Your task to perform on an android device: Toggle the flashlight Image 0: 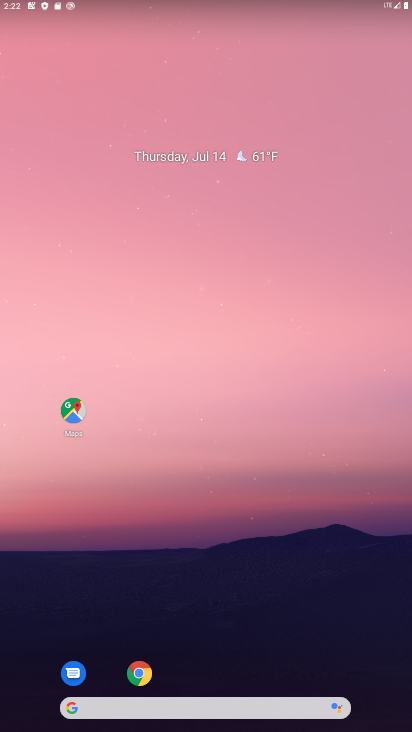
Step 0: drag from (220, 653) to (382, 31)
Your task to perform on an android device: Toggle the flashlight Image 1: 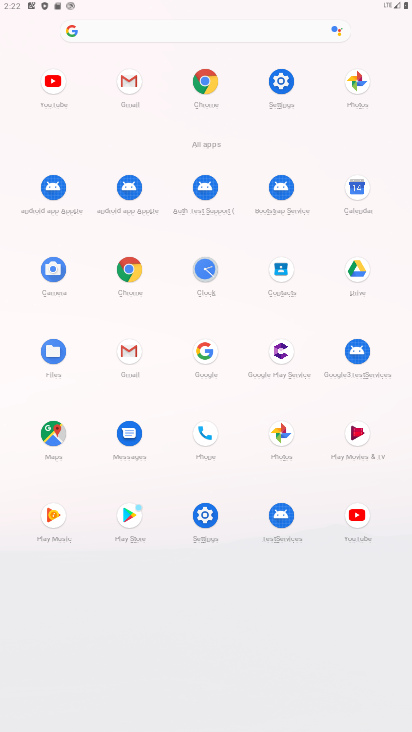
Step 1: click (281, 177)
Your task to perform on an android device: Toggle the flashlight Image 2: 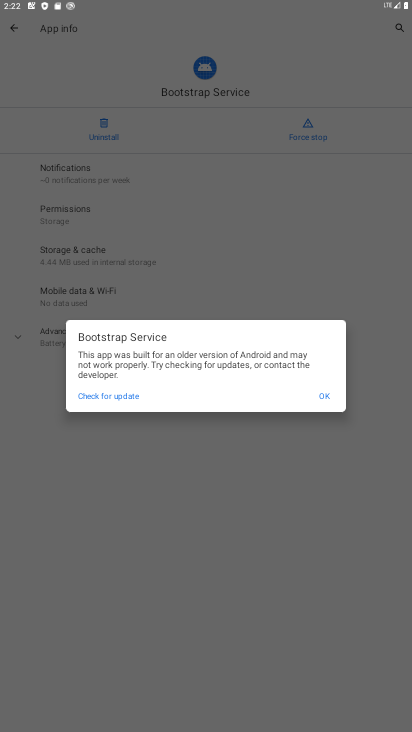
Step 2: click (282, 81)
Your task to perform on an android device: Toggle the flashlight Image 3: 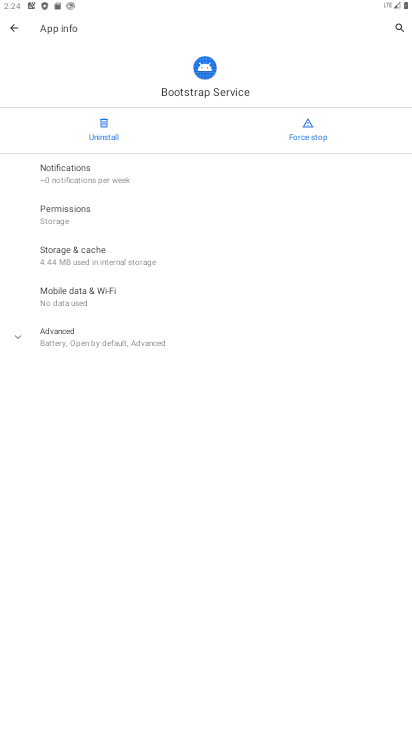
Step 3: task complete